Your task to perform on an android device: Is it going to rain tomorrow? Image 0: 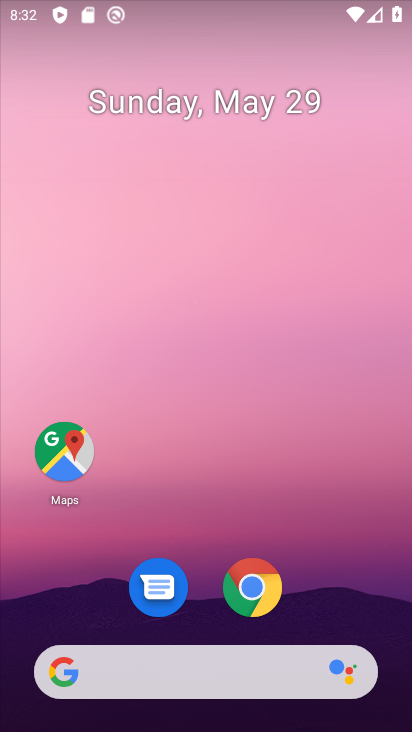
Step 0: click (178, 682)
Your task to perform on an android device: Is it going to rain tomorrow? Image 1: 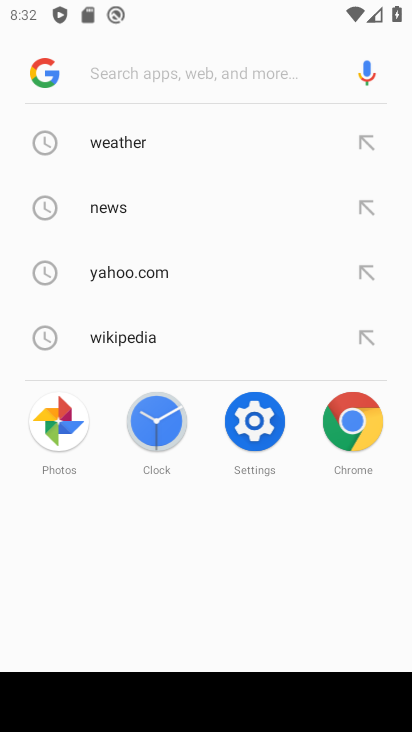
Step 1: click (177, 144)
Your task to perform on an android device: Is it going to rain tomorrow? Image 2: 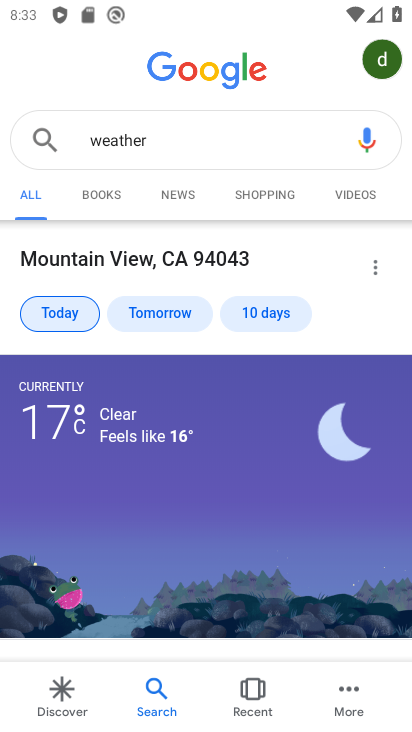
Step 2: click (176, 315)
Your task to perform on an android device: Is it going to rain tomorrow? Image 3: 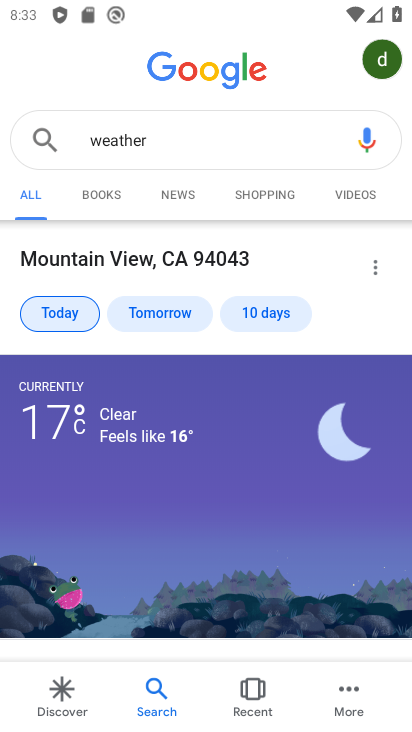
Step 3: click (150, 319)
Your task to perform on an android device: Is it going to rain tomorrow? Image 4: 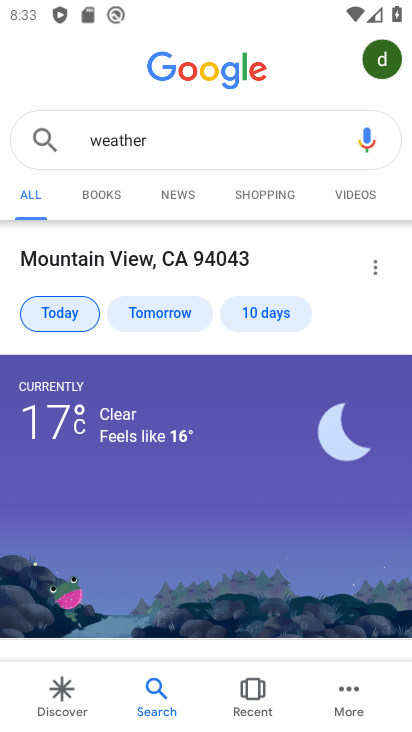
Step 4: click (150, 319)
Your task to perform on an android device: Is it going to rain tomorrow? Image 5: 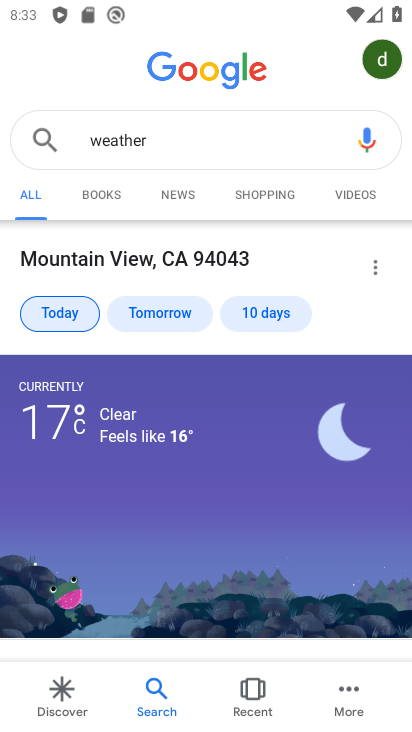
Step 5: click (150, 319)
Your task to perform on an android device: Is it going to rain tomorrow? Image 6: 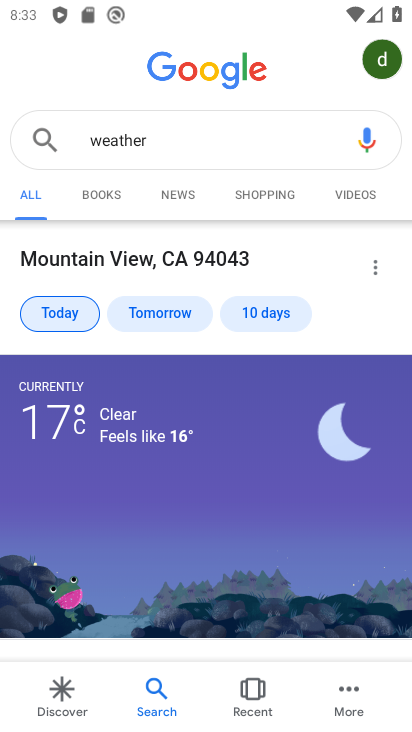
Step 6: click (150, 319)
Your task to perform on an android device: Is it going to rain tomorrow? Image 7: 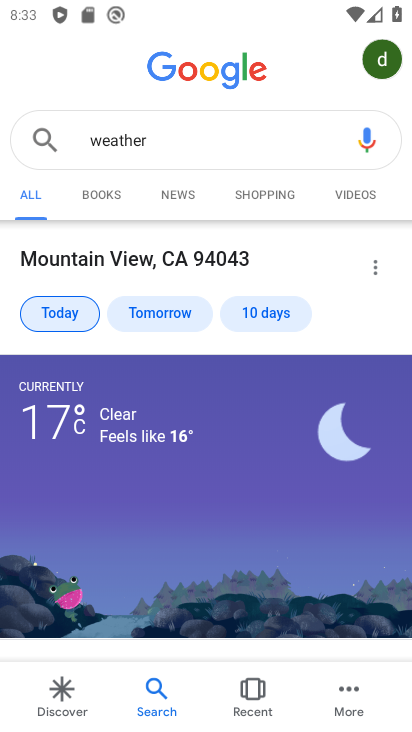
Step 7: click (150, 319)
Your task to perform on an android device: Is it going to rain tomorrow? Image 8: 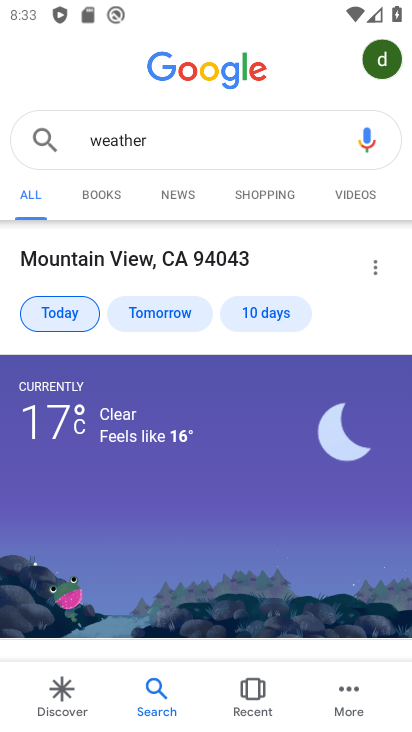
Step 8: click (150, 319)
Your task to perform on an android device: Is it going to rain tomorrow? Image 9: 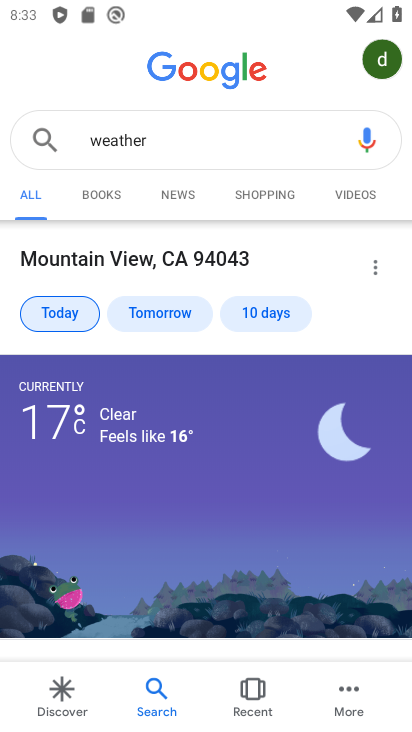
Step 9: click (150, 319)
Your task to perform on an android device: Is it going to rain tomorrow? Image 10: 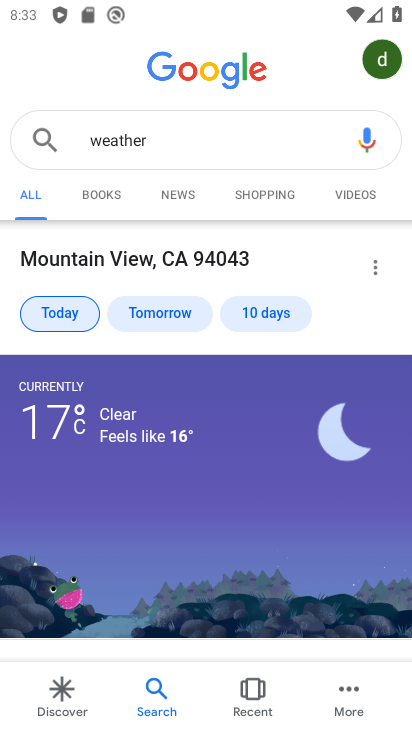
Step 10: click (150, 319)
Your task to perform on an android device: Is it going to rain tomorrow? Image 11: 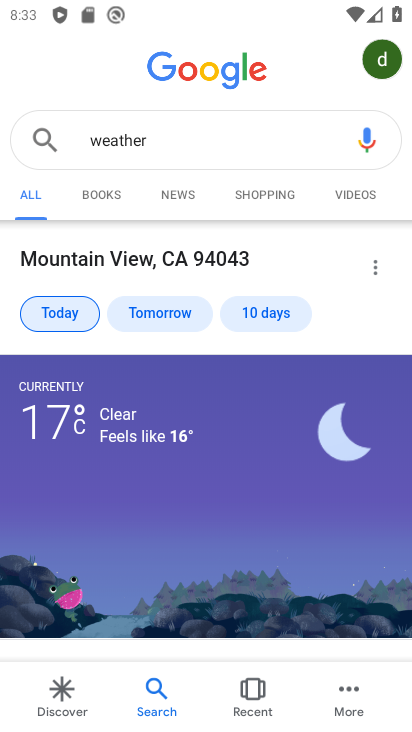
Step 11: click (150, 319)
Your task to perform on an android device: Is it going to rain tomorrow? Image 12: 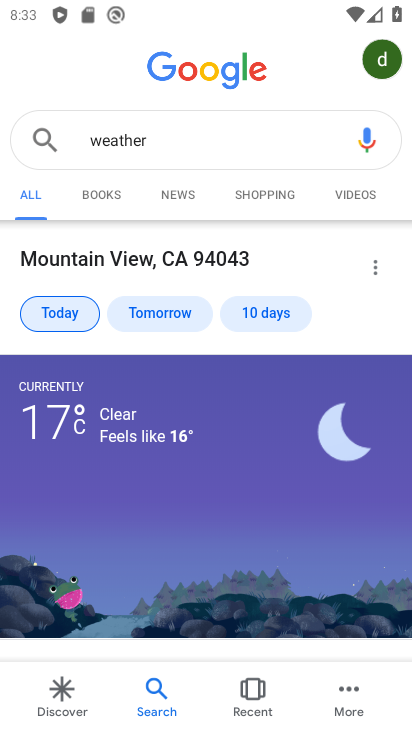
Step 12: click (150, 319)
Your task to perform on an android device: Is it going to rain tomorrow? Image 13: 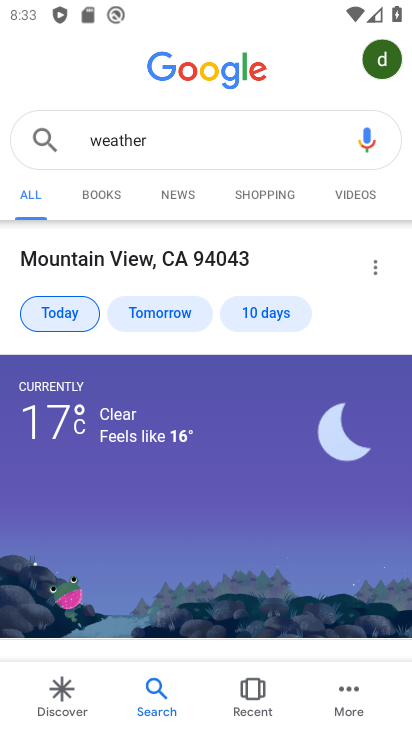
Step 13: click (150, 319)
Your task to perform on an android device: Is it going to rain tomorrow? Image 14: 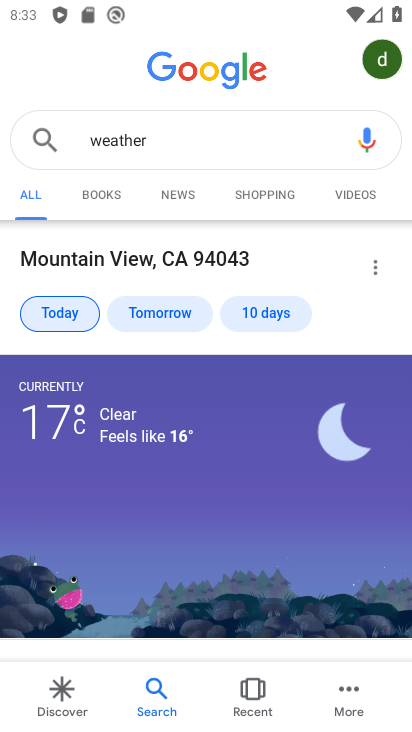
Step 14: click (150, 319)
Your task to perform on an android device: Is it going to rain tomorrow? Image 15: 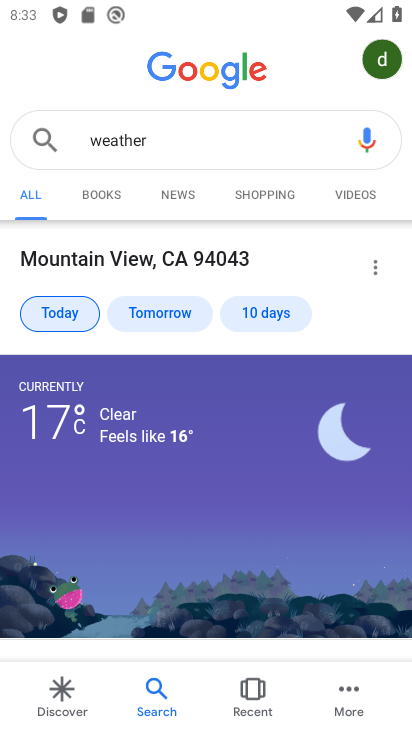
Step 15: drag from (151, 467) to (194, 165)
Your task to perform on an android device: Is it going to rain tomorrow? Image 16: 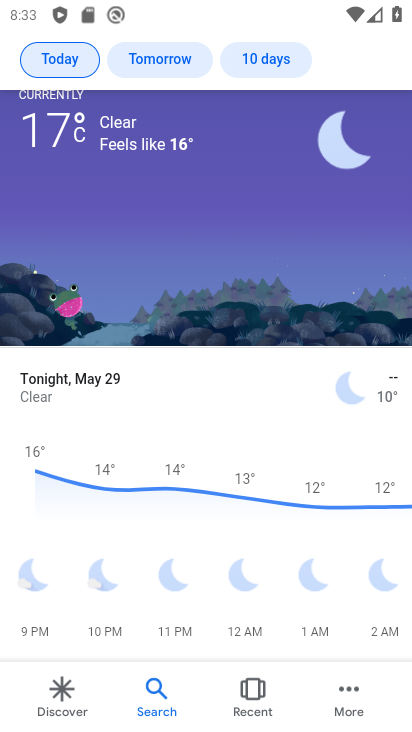
Step 16: click (175, 568)
Your task to perform on an android device: Is it going to rain tomorrow? Image 17: 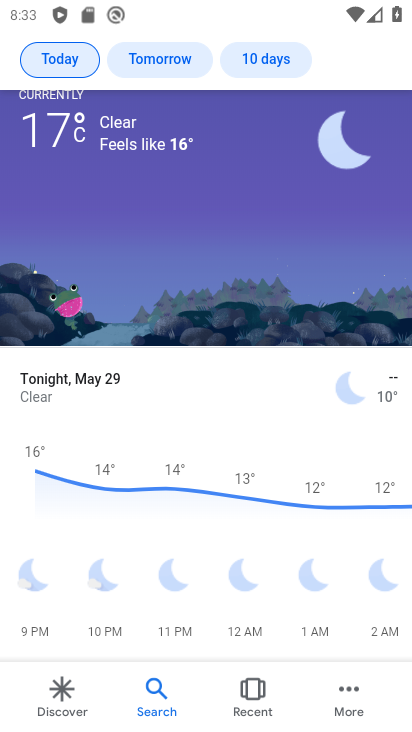
Step 17: drag from (61, 593) to (125, 240)
Your task to perform on an android device: Is it going to rain tomorrow? Image 18: 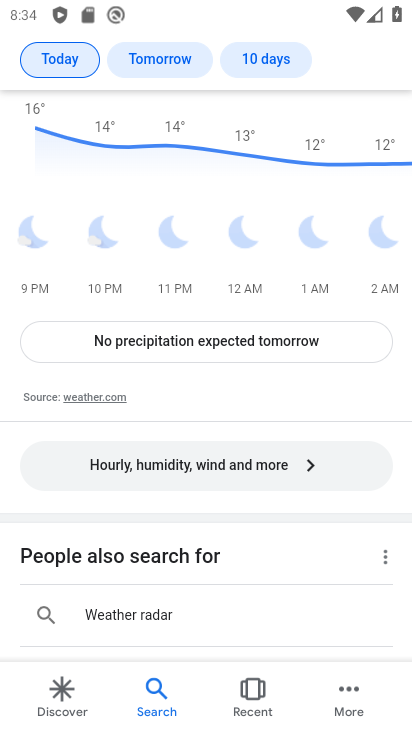
Step 18: click (99, 400)
Your task to perform on an android device: Is it going to rain tomorrow? Image 19: 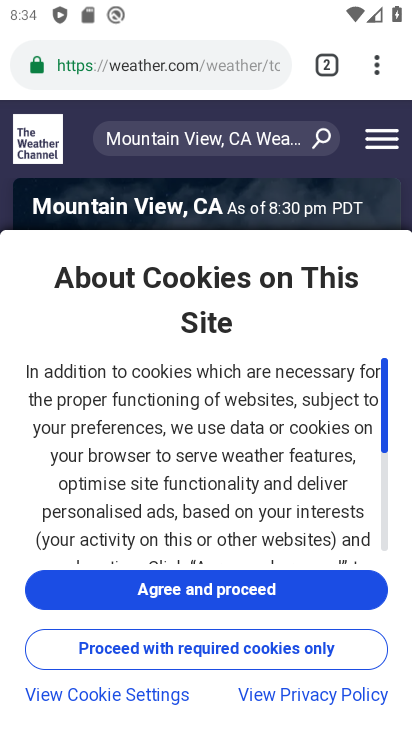
Step 19: click (232, 583)
Your task to perform on an android device: Is it going to rain tomorrow? Image 20: 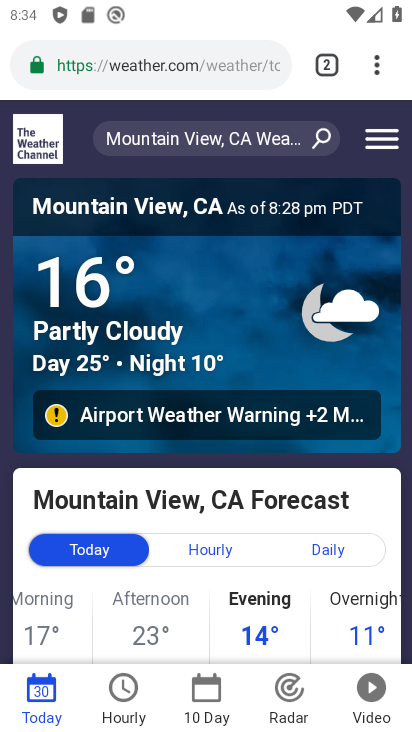
Step 20: click (191, 688)
Your task to perform on an android device: Is it going to rain tomorrow? Image 21: 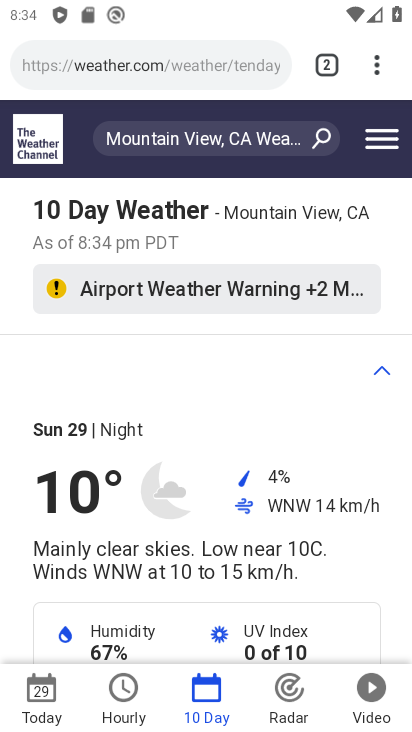
Step 21: drag from (184, 497) to (249, 45)
Your task to perform on an android device: Is it going to rain tomorrow? Image 22: 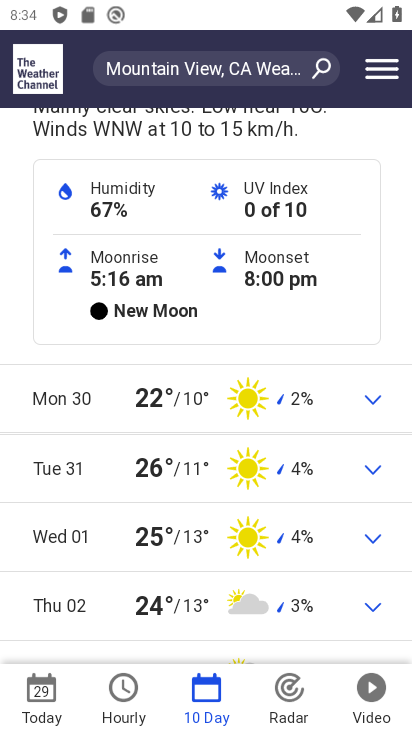
Step 22: click (101, 415)
Your task to perform on an android device: Is it going to rain tomorrow? Image 23: 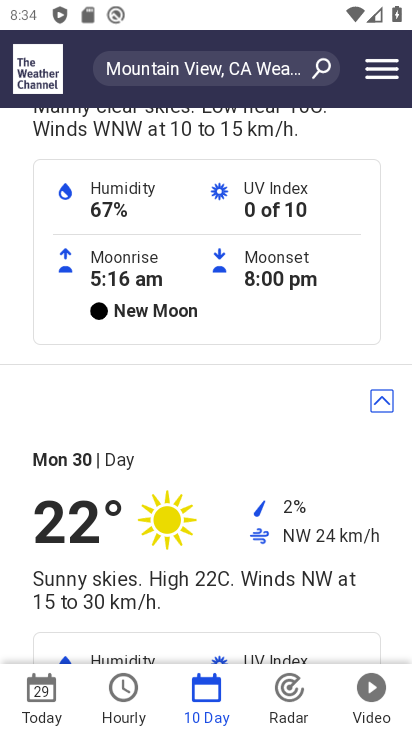
Step 23: task complete